Your task to perform on an android device: set default search engine in the chrome app Image 0: 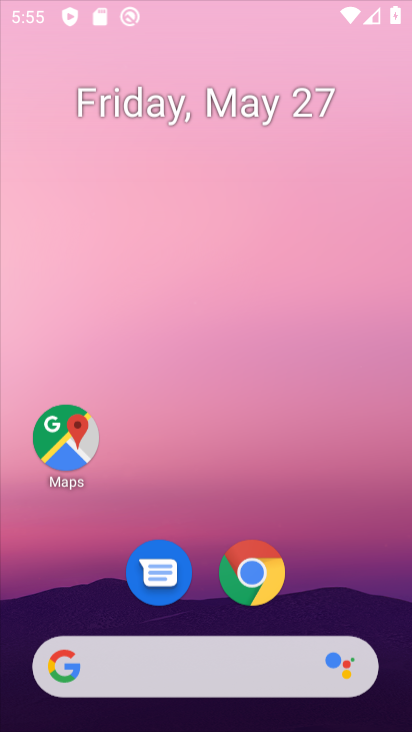
Step 0: press home button
Your task to perform on an android device: set default search engine in the chrome app Image 1: 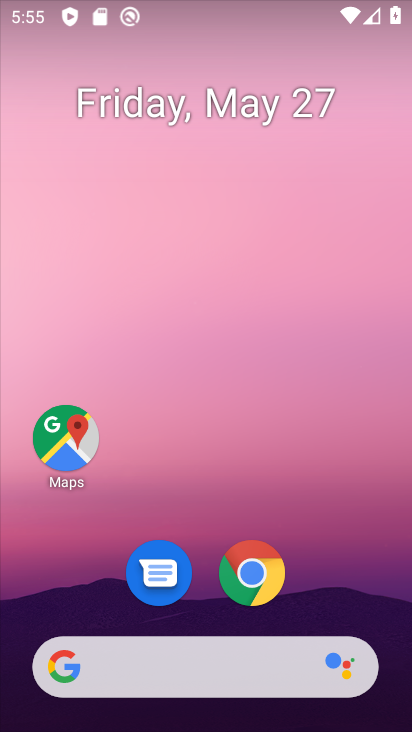
Step 1: click (260, 570)
Your task to perform on an android device: set default search engine in the chrome app Image 2: 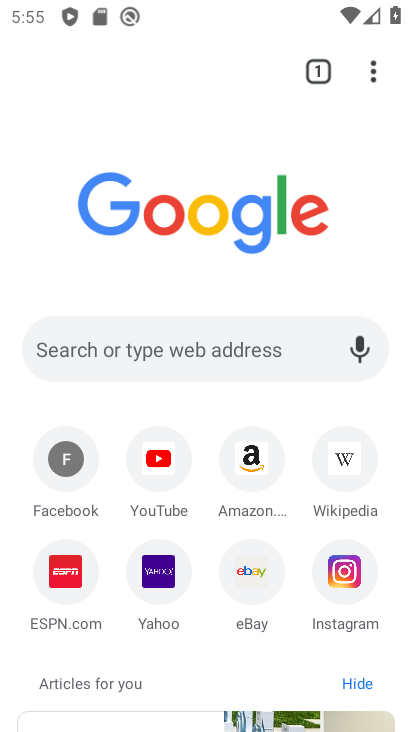
Step 2: click (371, 71)
Your task to perform on an android device: set default search engine in the chrome app Image 3: 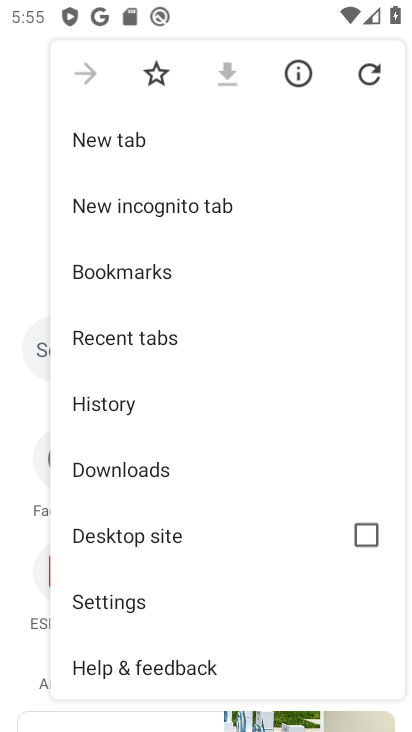
Step 3: click (132, 609)
Your task to perform on an android device: set default search engine in the chrome app Image 4: 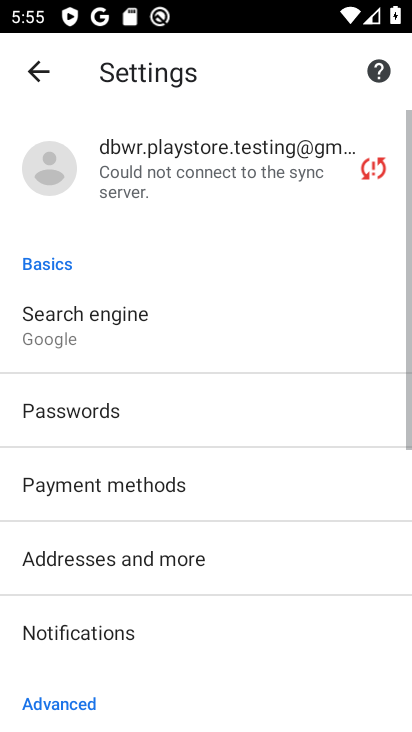
Step 4: click (99, 333)
Your task to perform on an android device: set default search engine in the chrome app Image 5: 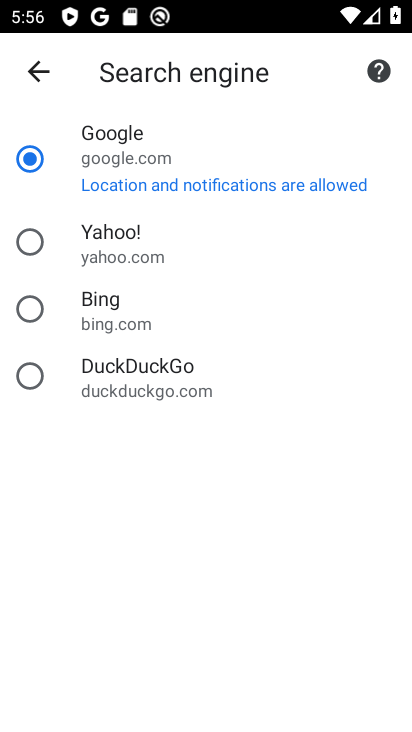
Step 5: click (36, 238)
Your task to perform on an android device: set default search engine in the chrome app Image 6: 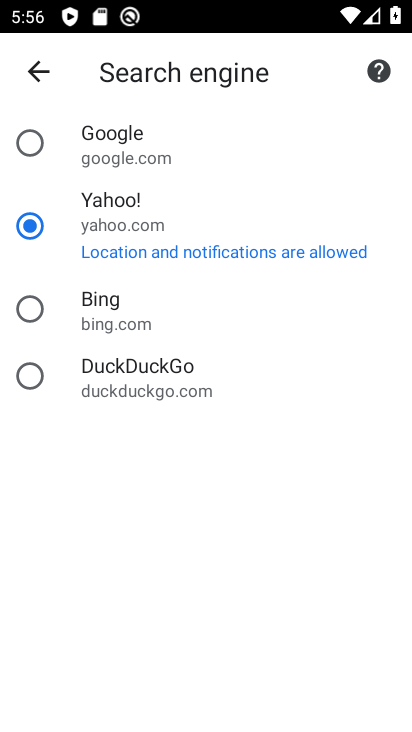
Step 6: task complete